Your task to perform on an android device: Open the Play Movies app and select the watchlist tab. Image 0: 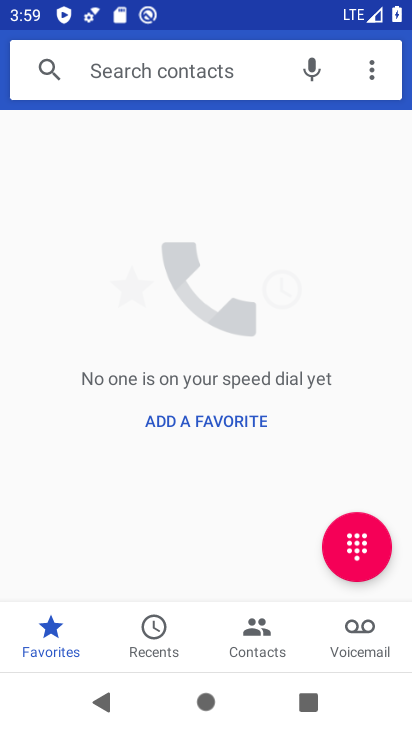
Step 0: press home button
Your task to perform on an android device: Open the Play Movies app and select the watchlist tab. Image 1: 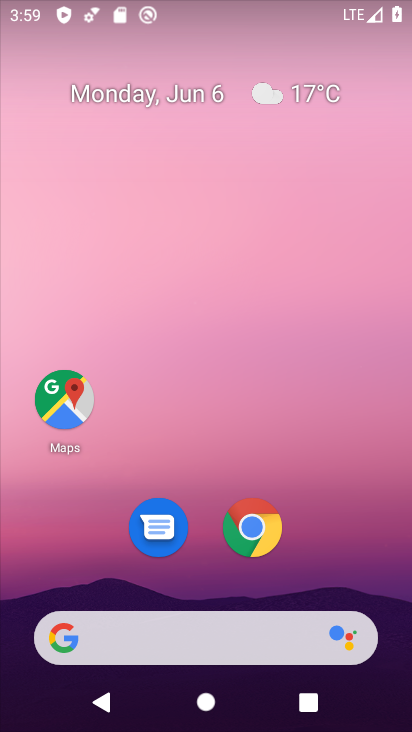
Step 1: drag from (316, 422) to (380, 172)
Your task to perform on an android device: Open the Play Movies app and select the watchlist tab. Image 2: 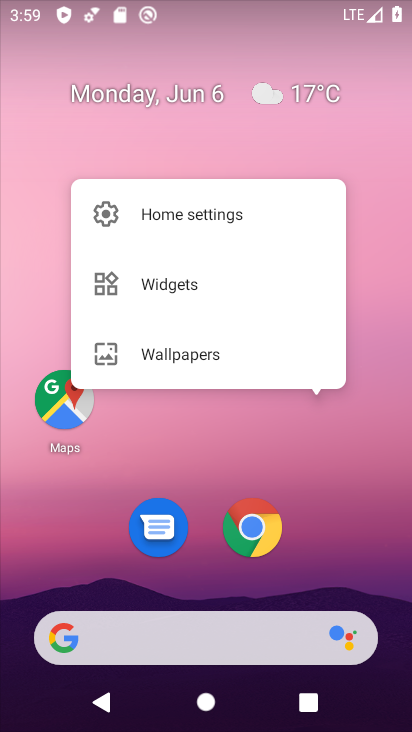
Step 2: click (374, 454)
Your task to perform on an android device: Open the Play Movies app and select the watchlist tab. Image 3: 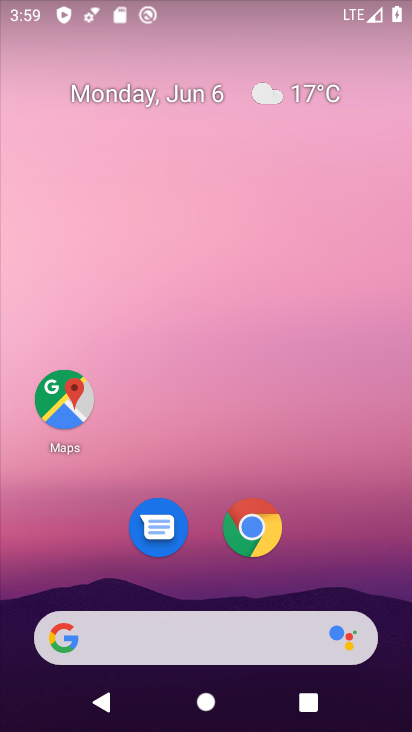
Step 3: drag from (373, 512) to (400, 325)
Your task to perform on an android device: Open the Play Movies app and select the watchlist tab. Image 4: 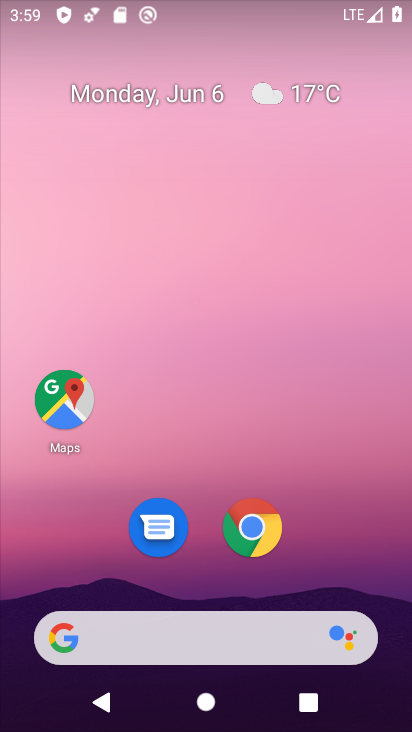
Step 4: drag from (311, 508) to (362, 124)
Your task to perform on an android device: Open the Play Movies app and select the watchlist tab. Image 5: 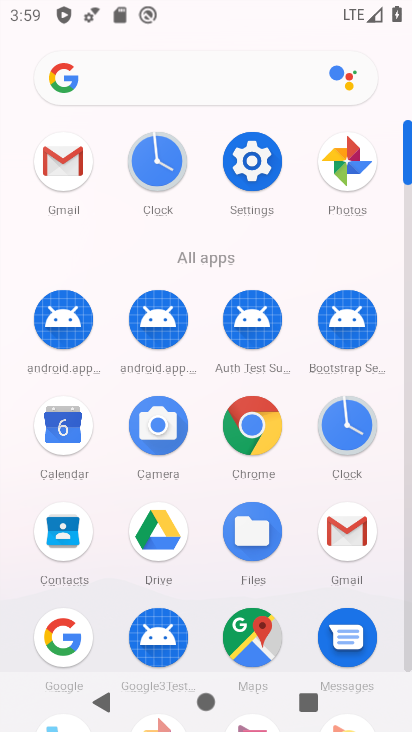
Step 5: click (403, 366)
Your task to perform on an android device: Open the Play Movies app and select the watchlist tab. Image 6: 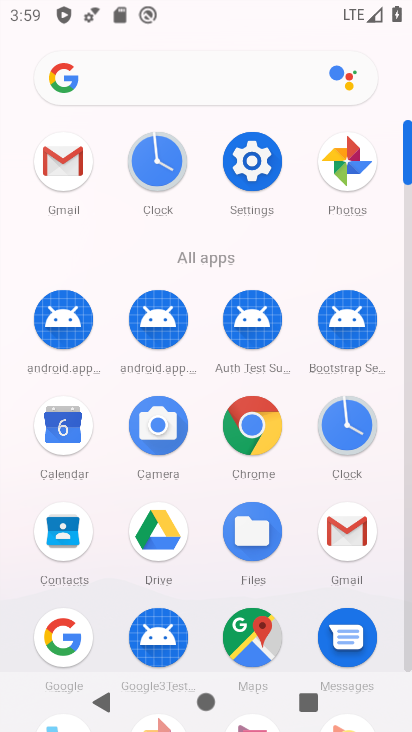
Step 6: click (408, 369)
Your task to perform on an android device: Open the Play Movies app and select the watchlist tab. Image 7: 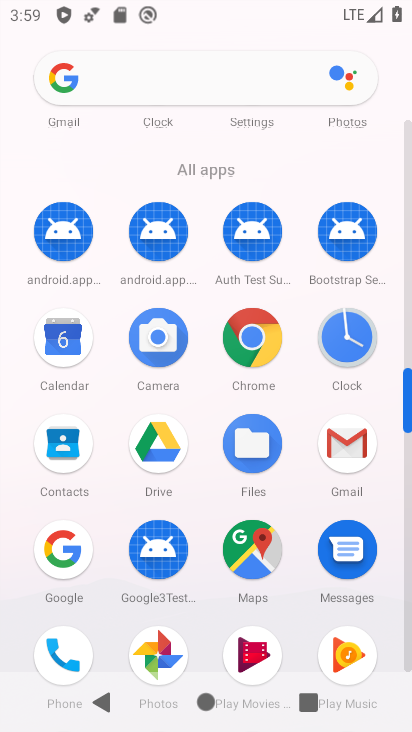
Step 7: click (248, 646)
Your task to perform on an android device: Open the Play Movies app and select the watchlist tab. Image 8: 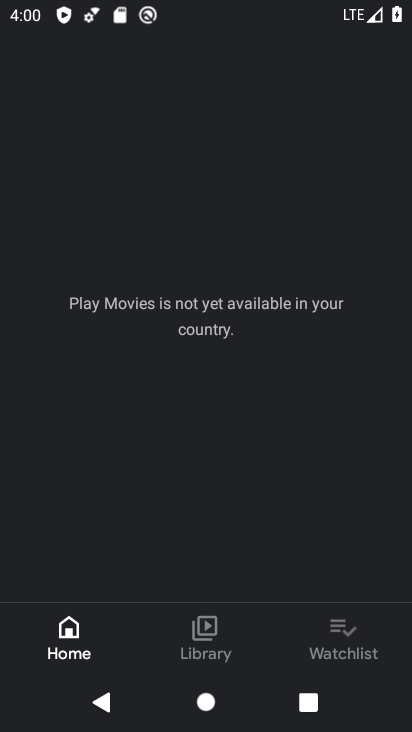
Step 8: click (336, 644)
Your task to perform on an android device: Open the Play Movies app and select the watchlist tab. Image 9: 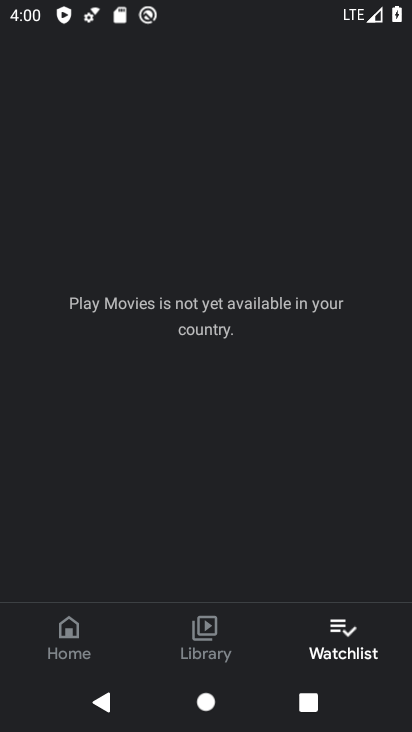
Step 9: task complete